Your task to perform on an android device: What's the weather going to be tomorrow? Image 0: 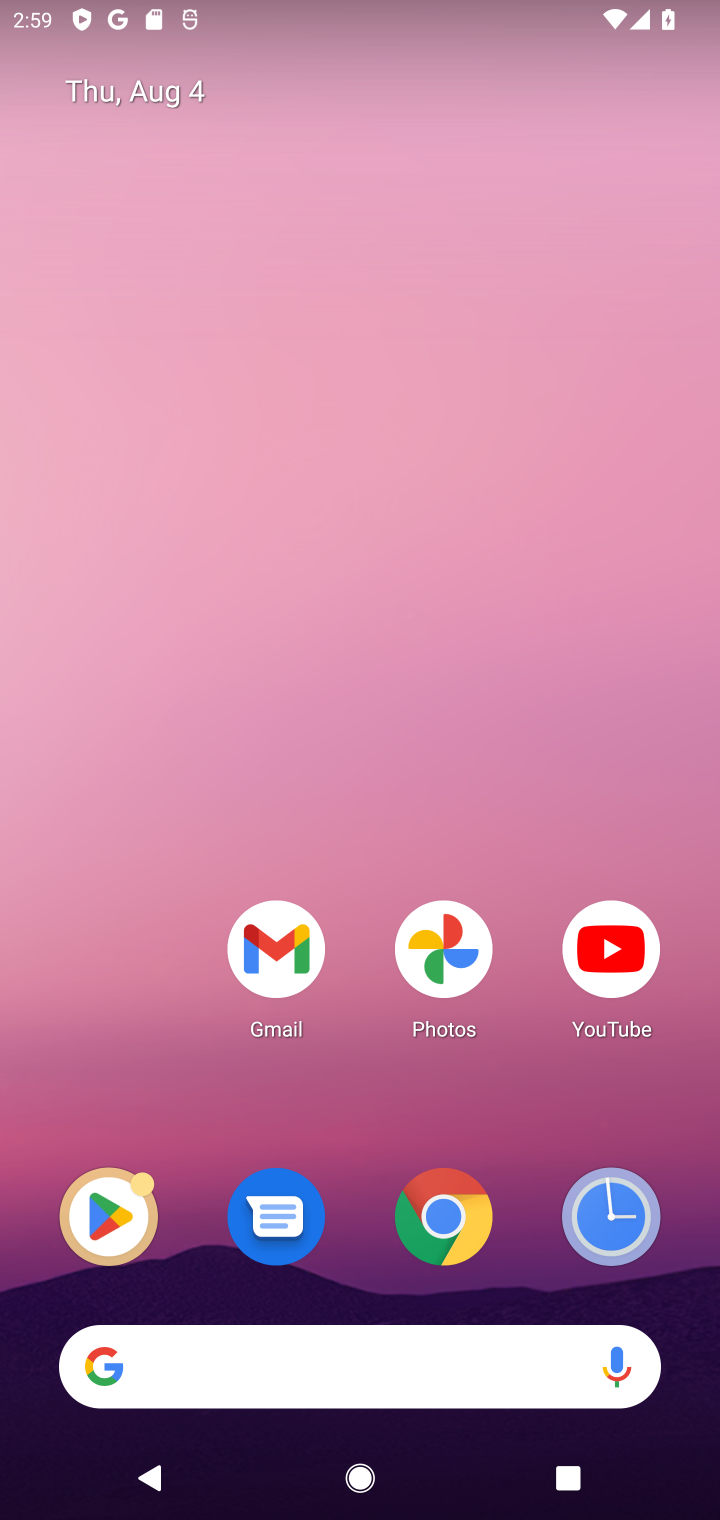
Step 0: click (252, 1360)
Your task to perform on an android device: What's the weather going to be tomorrow? Image 1: 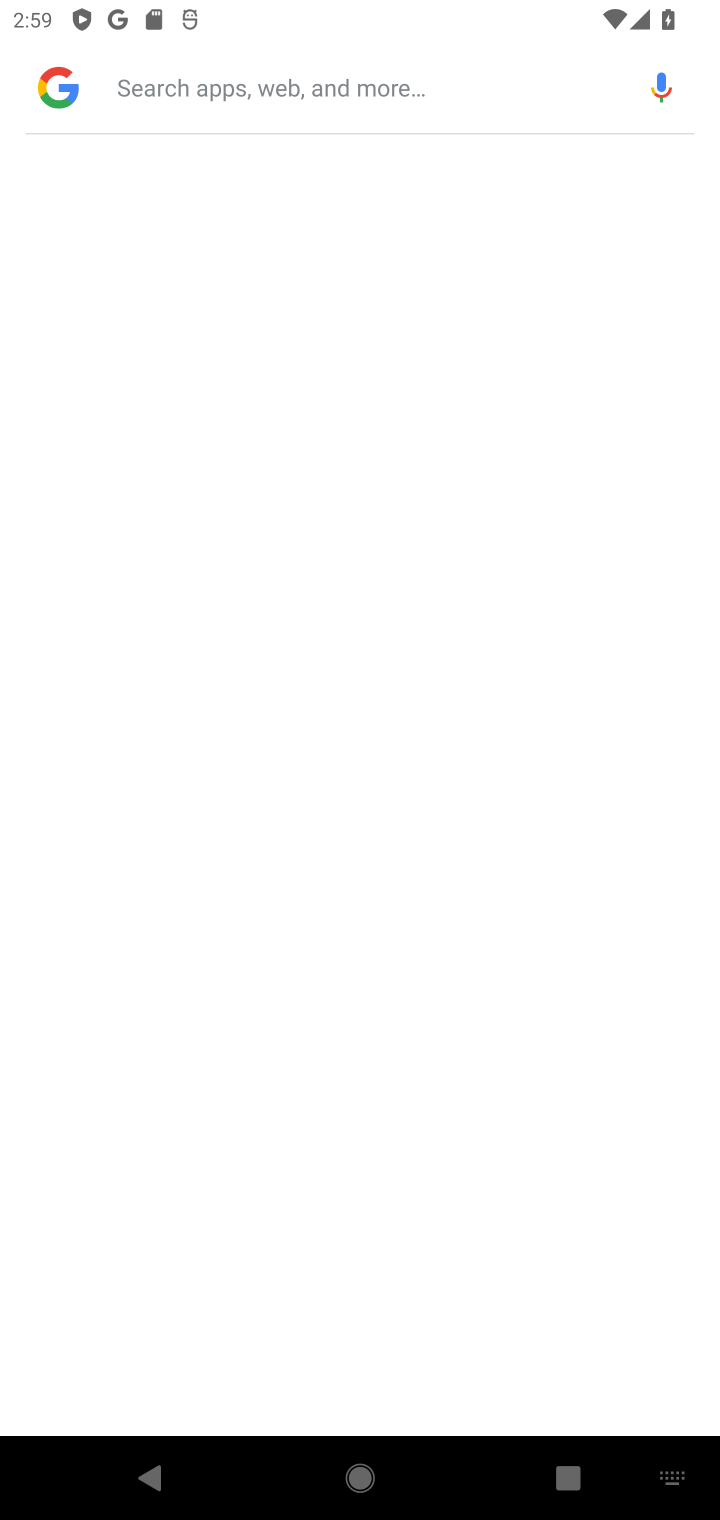
Step 1: click (213, 94)
Your task to perform on an android device: What's the weather going to be tomorrow? Image 2: 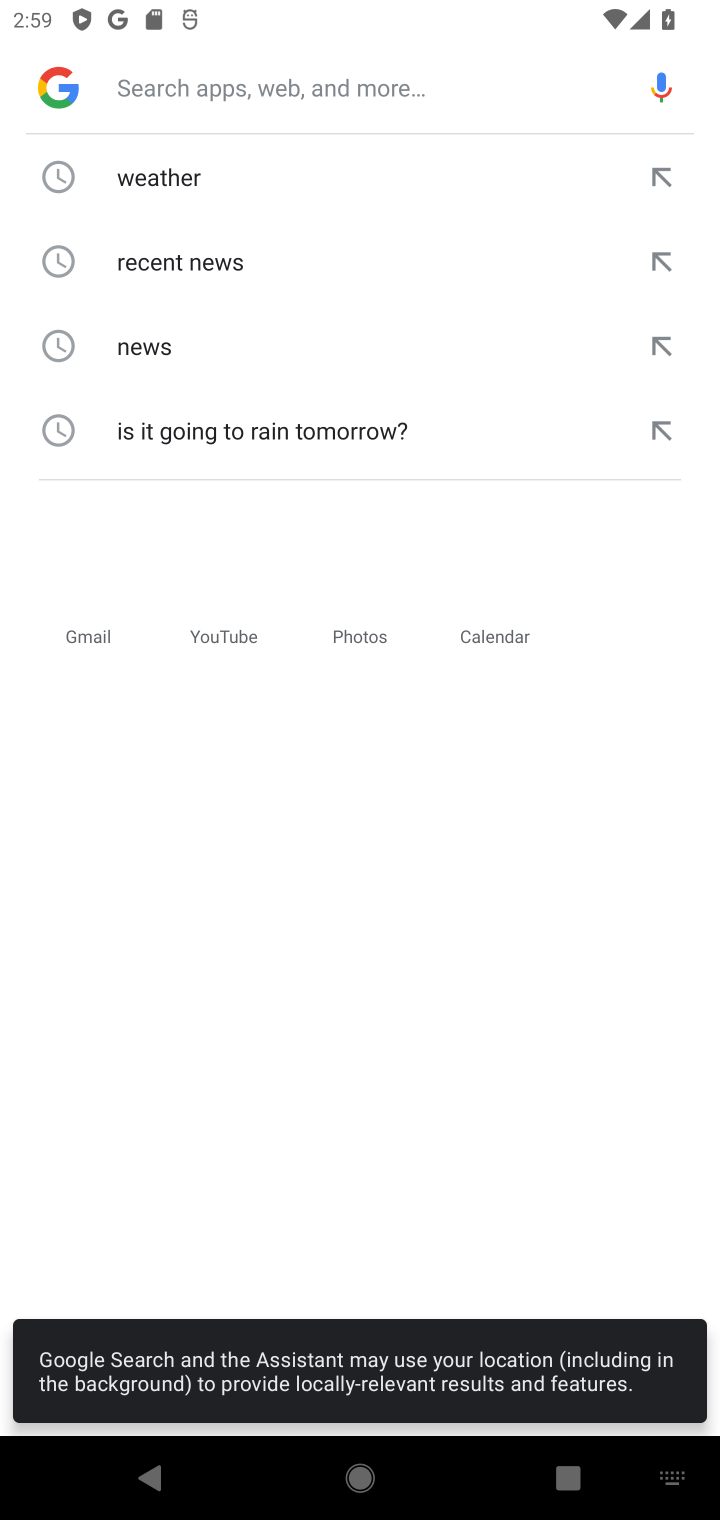
Step 2: click (176, 158)
Your task to perform on an android device: What's the weather going to be tomorrow? Image 3: 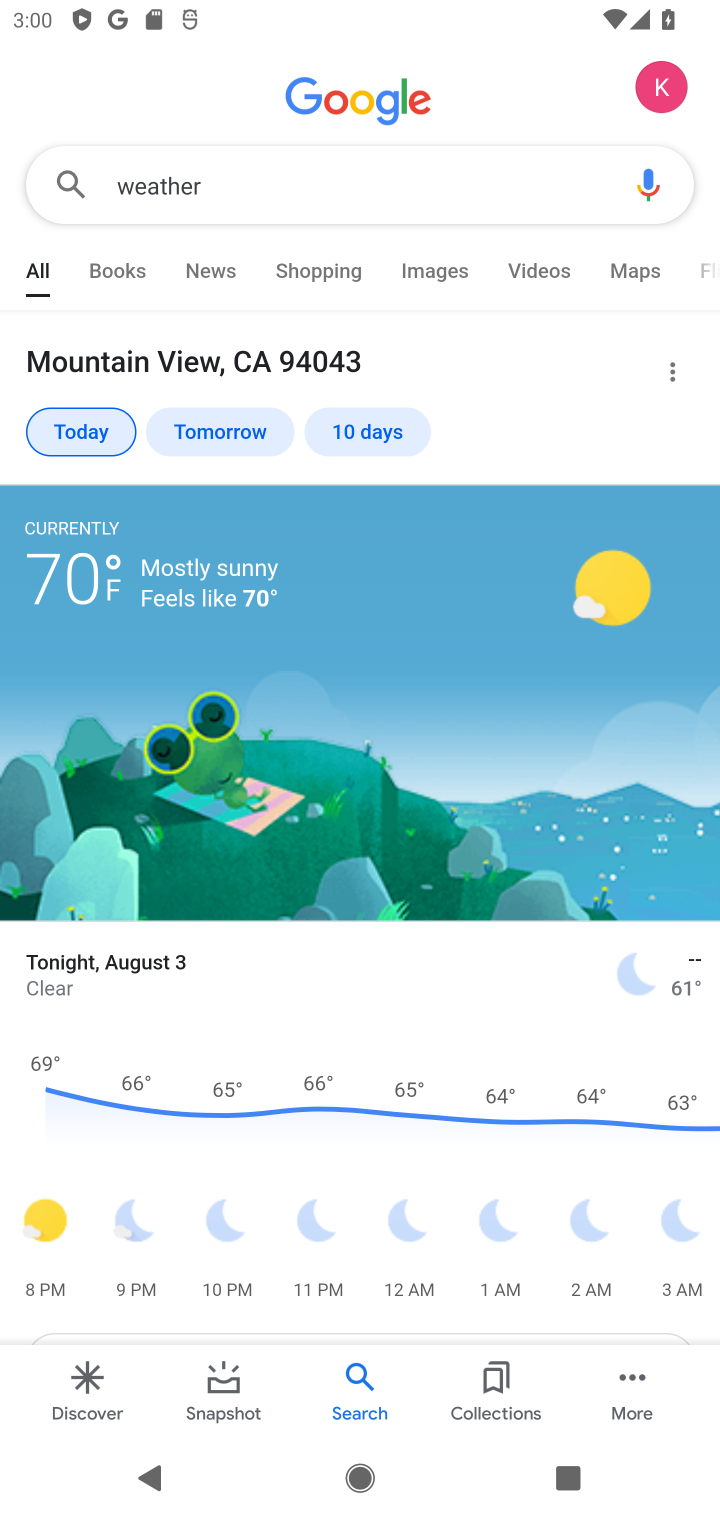
Step 3: click (230, 429)
Your task to perform on an android device: What's the weather going to be tomorrow? Image 4: 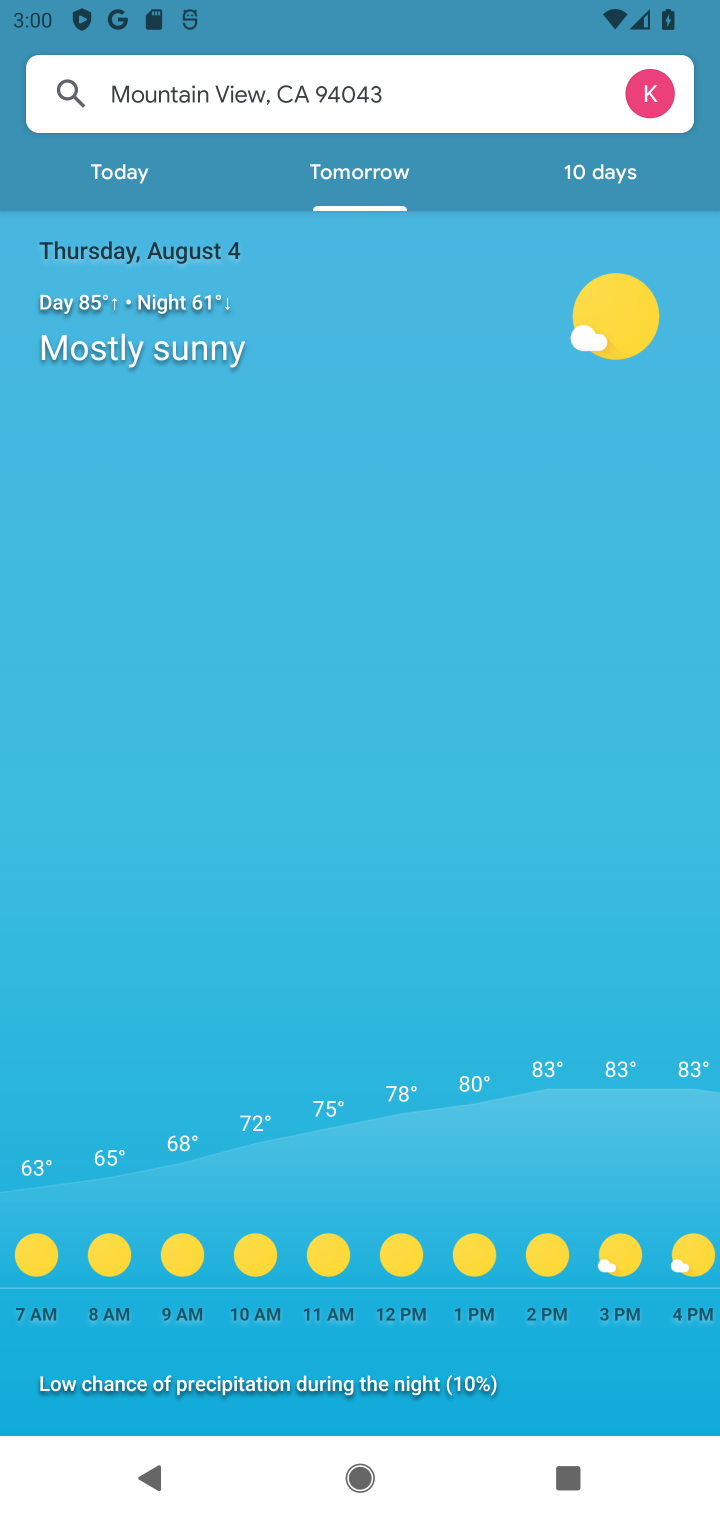
Step 4: task complete